Your task to perform on an android device: Open Google Image 0: 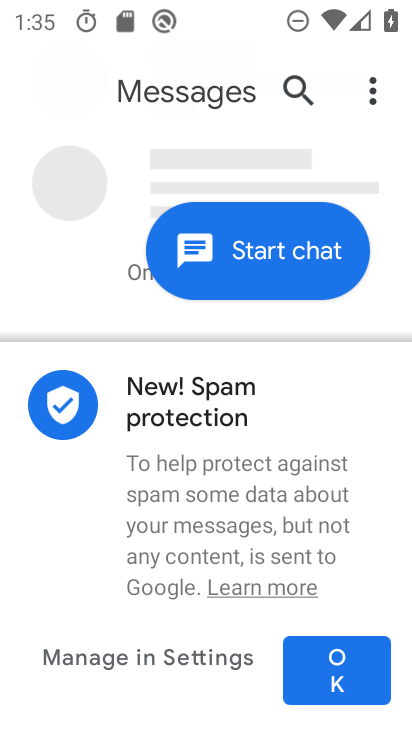
Step 0: press back button
Your task to perform on an android device: Open Google Image 1: 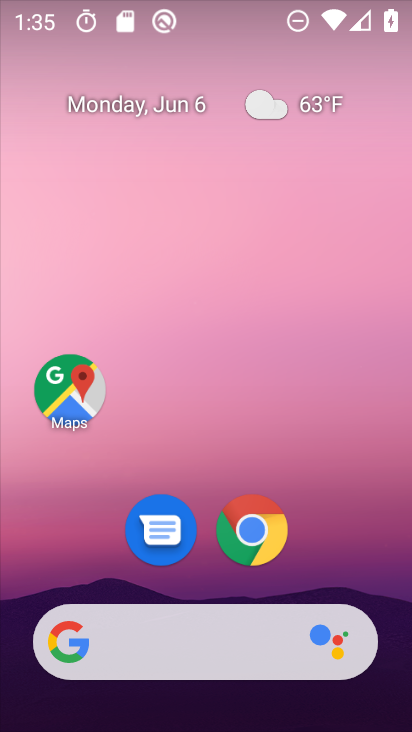
Step 1: drag from (346, 522) to (260, 66)
Your task to perform on an android device: Open Google Image 2: 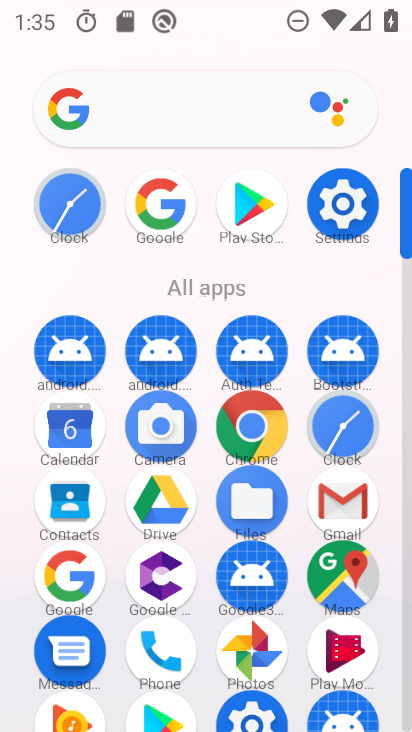
Step 2: drag from (291, 296) to (311, 162)
Your task to perform on an android device: Open Google Image 3: 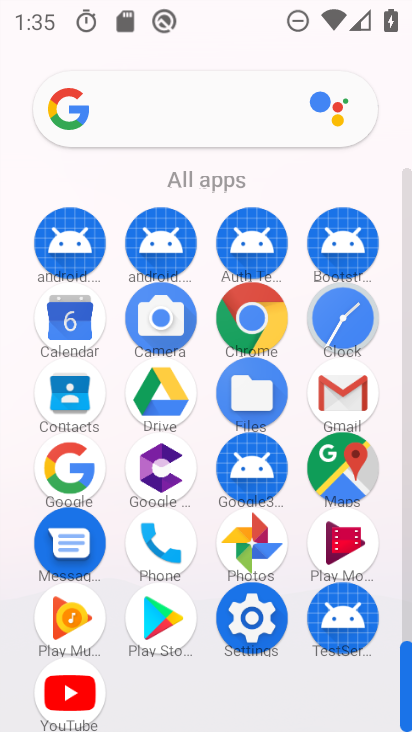
Step 3: click (61, 465)
Your task to perform on an android device: Open Google Image 4: 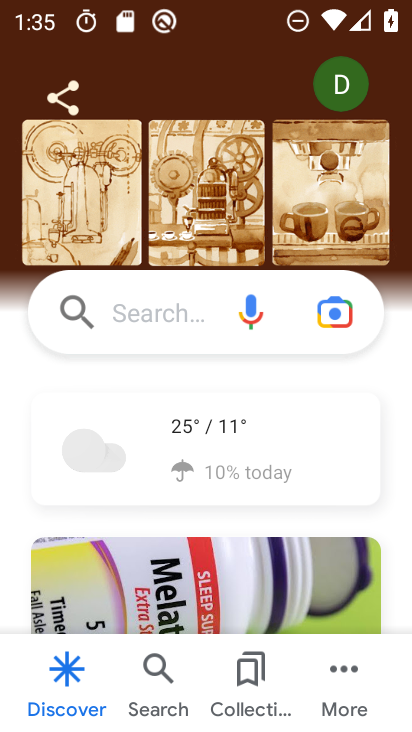
Step 4: task complete